Your task to perform on an android device: toggle improve location accuracy Image 0: 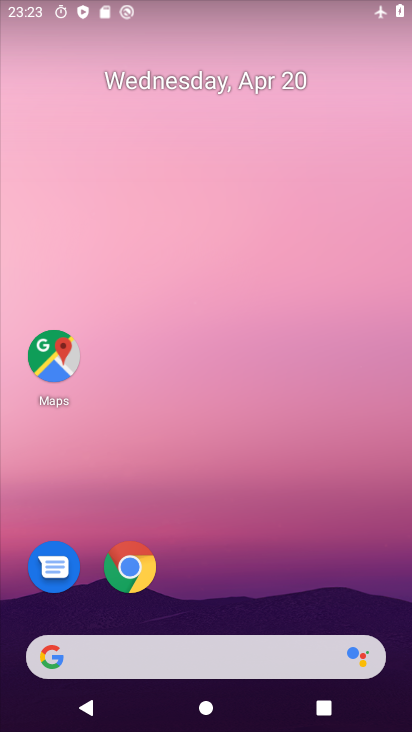
Step 0: drag from (260, 600) to (317, 208)
Your task to perform on an android device: toggle improve location accuracy Image 1: 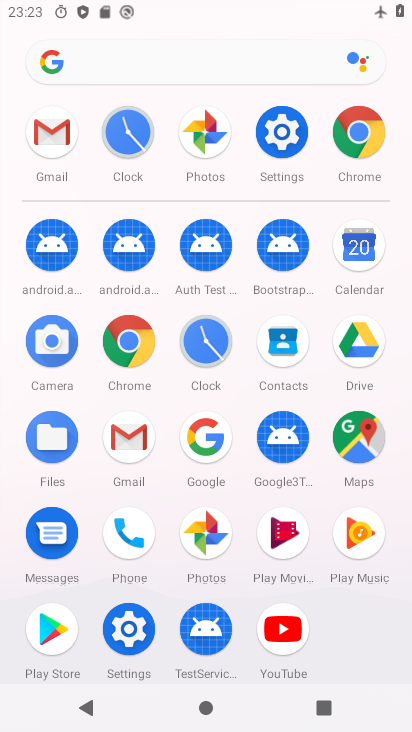
Step 1: click (293, 119)
Your task to perform on an android device: toggle improve location accuracy Image 2: 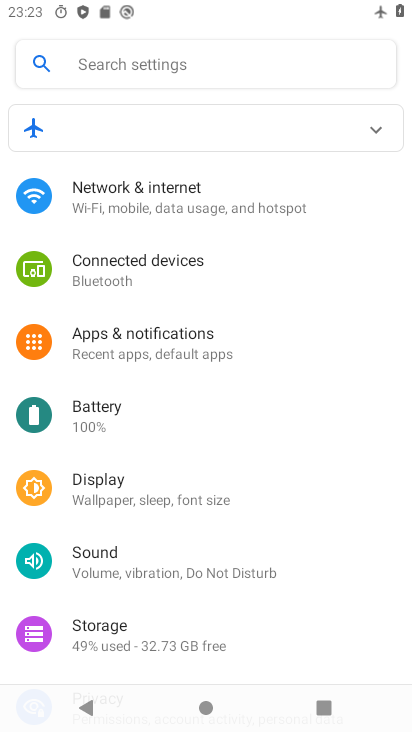
Step 2: drag from (262, 571) to (305, 130)
Your task to perform on an android device: toggle improve location accuracy Image 3: 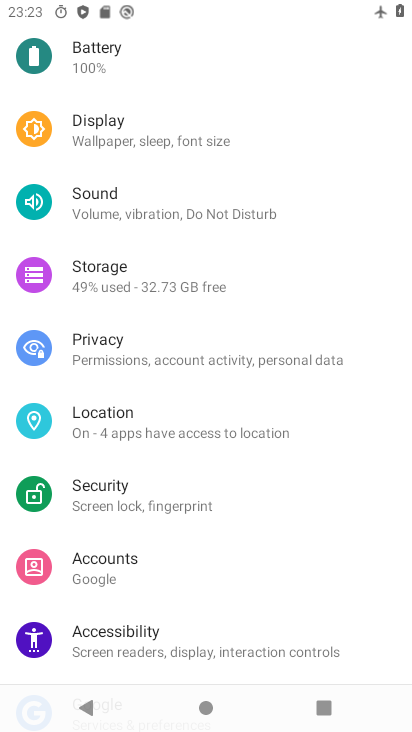
Step 3: click (179, 409)
Your task to perform on an android device: toggle improve location accuracy Image 4: 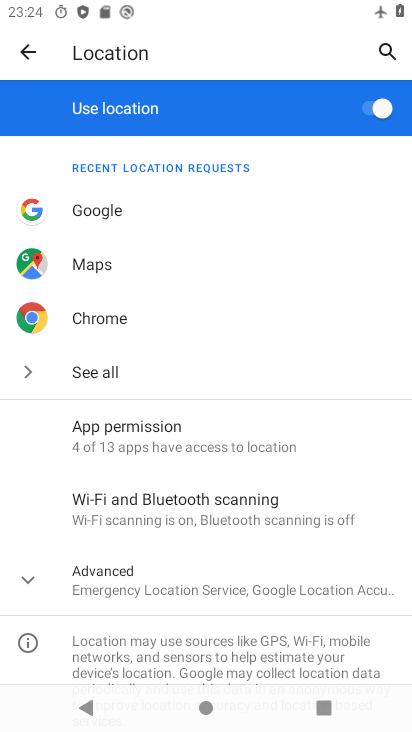
Step 4: drag from (177, 571) to (269, 259)
Your task to perform on an android device: toggle improve location accuracy Image 5: 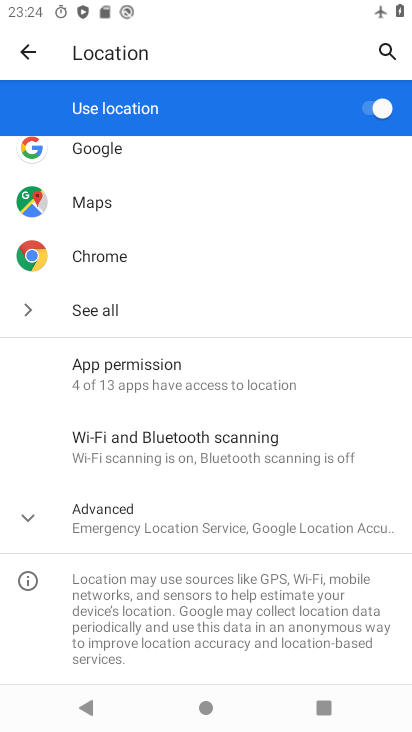
Step 5: click (243, 531)
Your task to perform on an android device: toggle improve location accuracy Image 6: 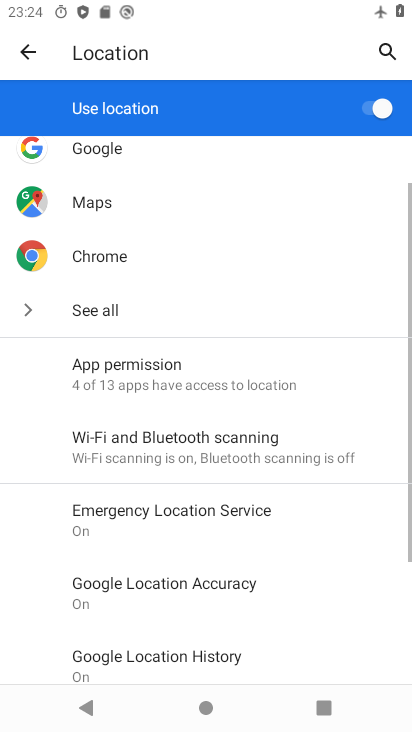
Step 6: drag from (230, 616) to (293, 346)
Your task to perform on an android device: toggle improve location accuracy Image 7: 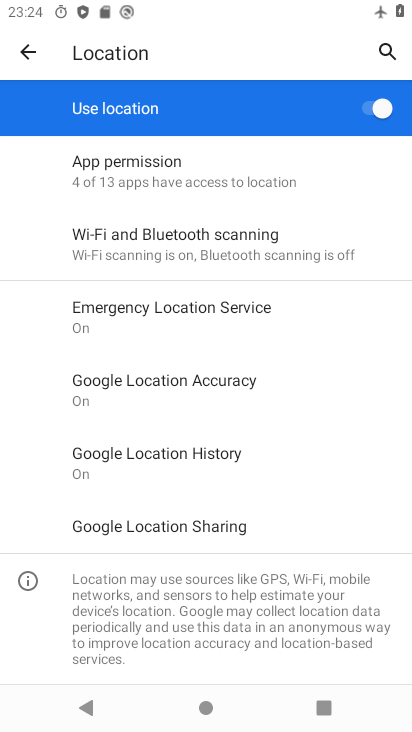
Step 7: click (243, 399)
Your task to perform on an android device: toggle improve location accuracy Image 8: 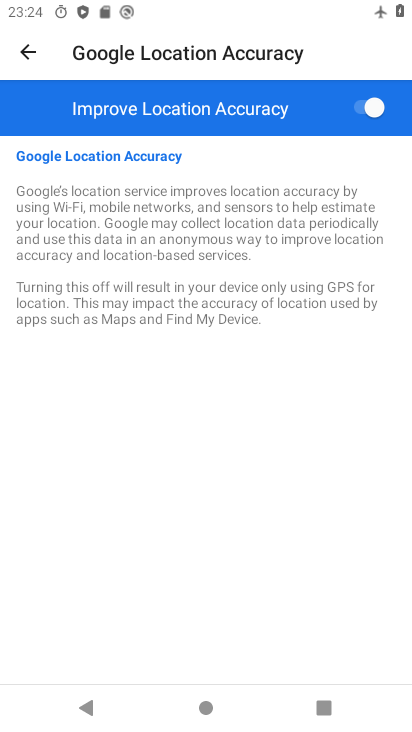
Step 8: click (368, 110)
Your task to perform on an android device: toggle improve location accuracy Image 9: 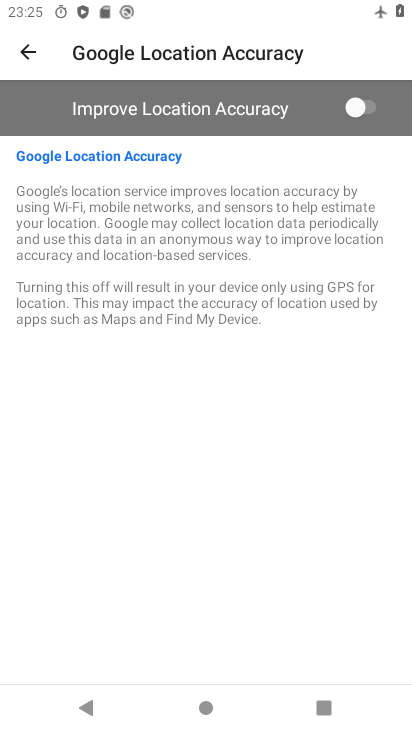
Step 9: task complete